Your task to perform on an android device: set default search engine in the chrome app Image 0: 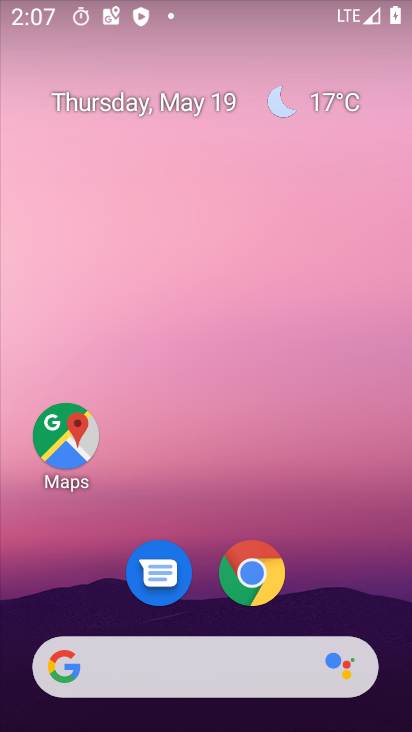
Step 0: click (259, 579)
Your task to perform on an android device: set default search engine in the chrome app Image 1: 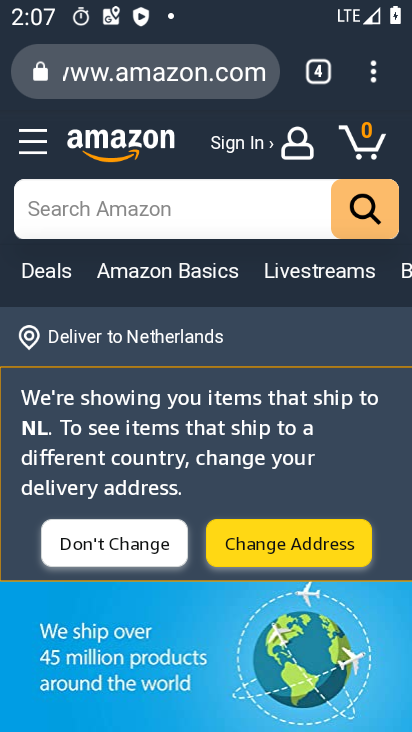
Step 1: drag from (373, 80) to (137, 569)
Your task to perform on an android device: set default search engine in the chrome app Image 2: 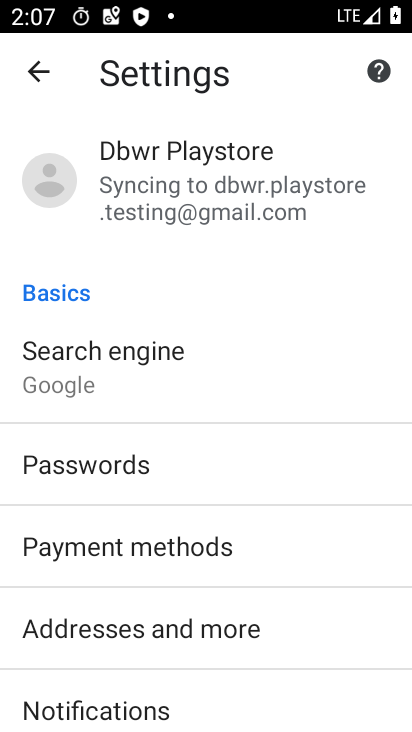
Step 2: click (113, 363)
Your task to perform on an android device: set default search engine in the chrome app Image 3: 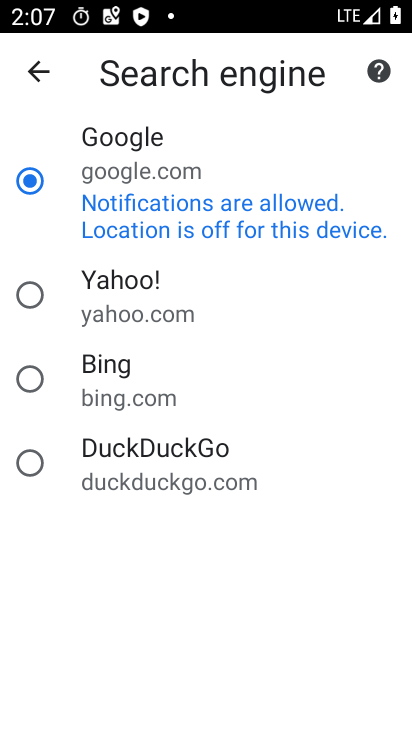
Step 3: click (15, 297)
Your task to perform on an android device: set default search engine in the chrome app Image 4: 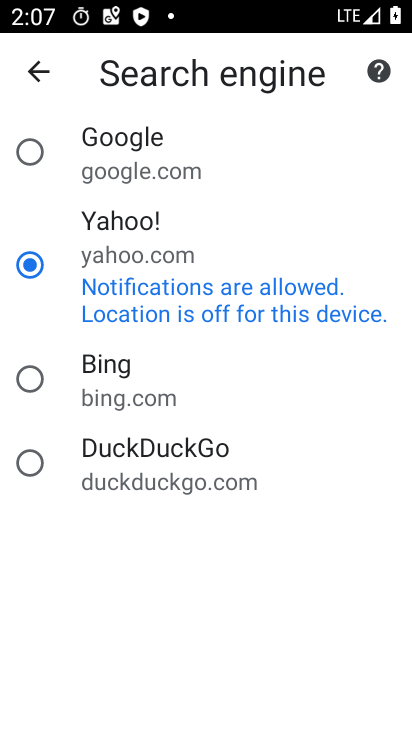
Step 4: task complete